Your task to perform on an android device: open a bookmark in the chrome app Image 0: 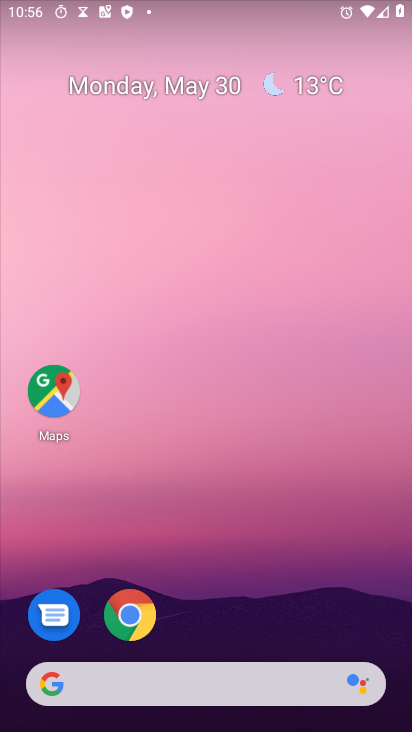
Step 0: drag from (307, 570) to (232, 123)
Your task to perform on an android device: open a bookmark in the chrome app Image 1: 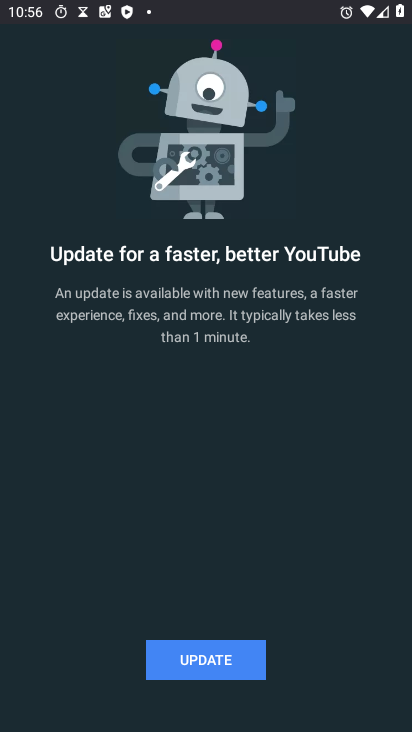
Step 1: click (195, 667)
Your task to perform on an android device: open a bookmark in the chrome app Image 2: 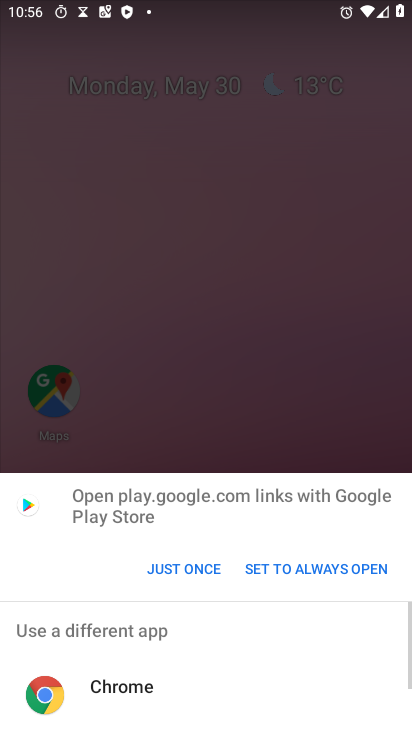
Step 2: click (209, 569)
Your task to perform on an android device: open a bookmark in the chrome app Image 3: 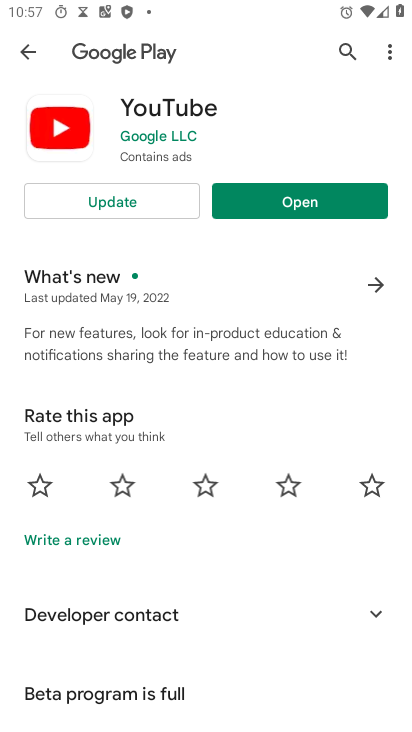
Step 3: click (25, 66)
Your task to perform on an android device: open a bookmark in the chrome app Image 4: 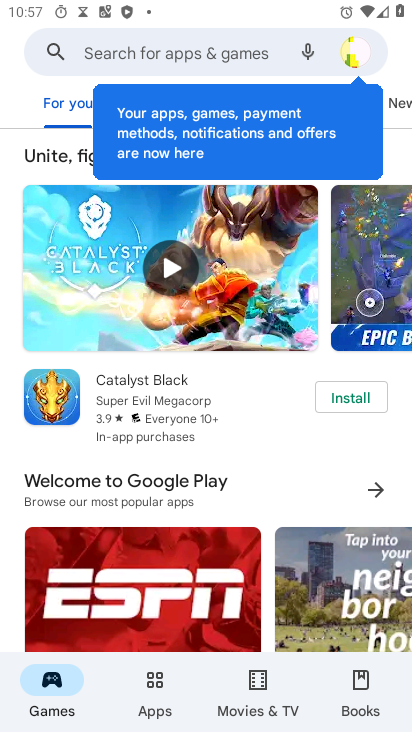
Step 4: press home button
Your task to perform on an android device: open a bookmark in the chrome app Image 5: 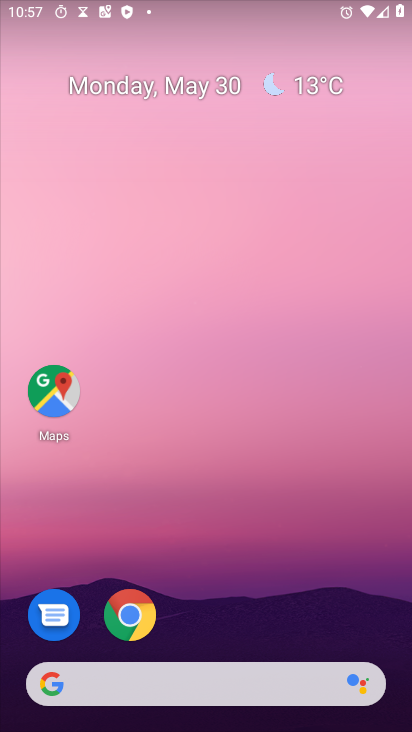
Step 5: drag from (297, 573) to (273, 0)
Your task to perform on an android device: open a bookmark in the chrome app Image 6: 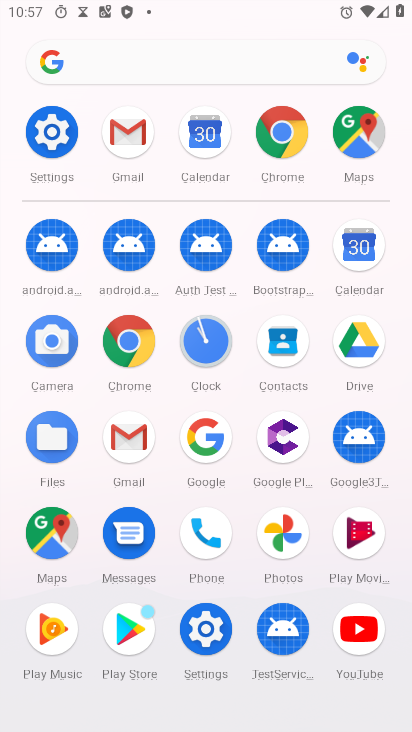
Step 6: click (287, 136)
Your task to perform on an android device: open a bookmark in the chrome app Image 7: 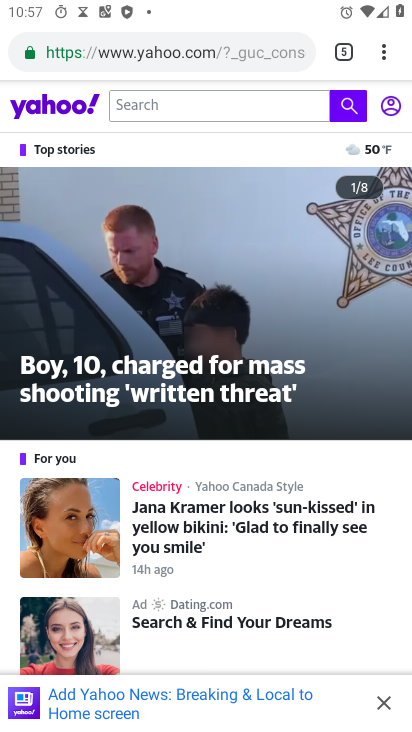
Step 7: task complete